Your task to perform on an android device: uninstall "DoorDash - Dasher" Image 0: 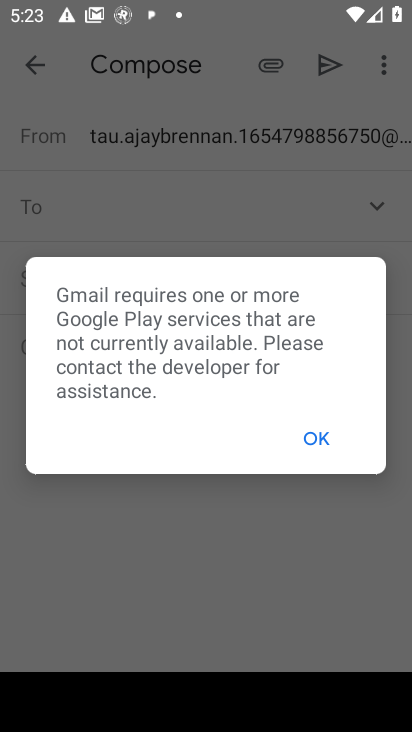
Step 0: press home button
Your task to perform on an android device: uninstall "DoorDash - Dasher" Image 1: 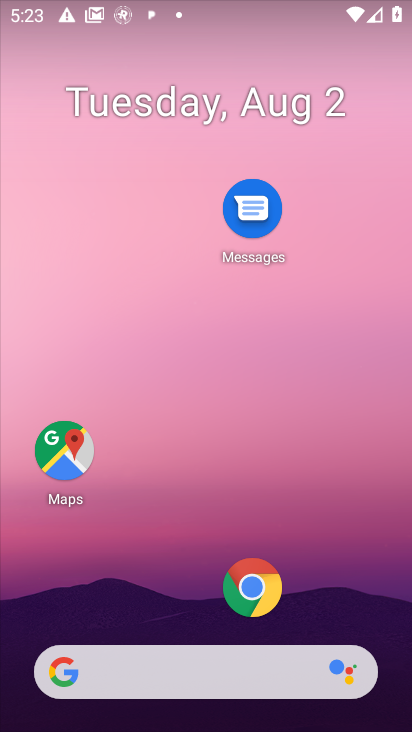
Step 1: drag from (159, 607) to (86, 263)
Your task to perform on an android device: uninstall "DoorDash - Dasher" Image 2: 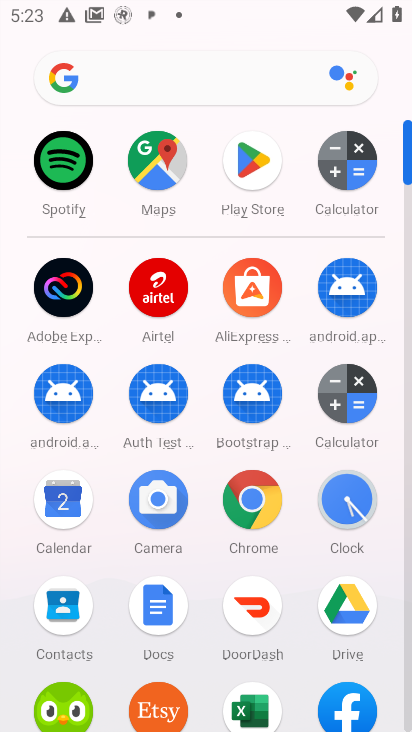
Step 2: click (253, 175)
Your task to perform on an android device: uninstall "DoorDash - Dasher" Image 3: 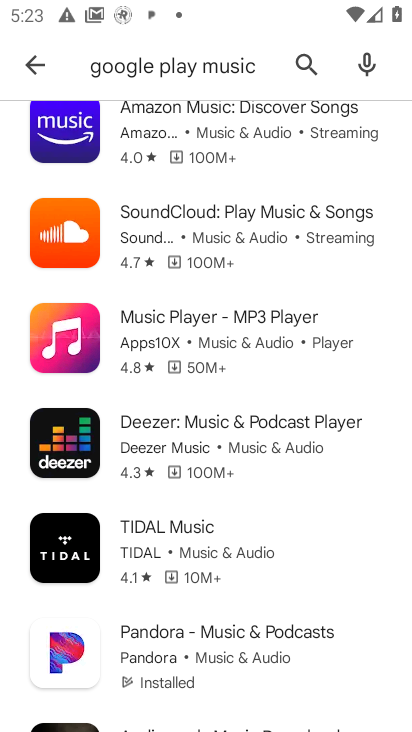
Step 3: click (314, 64)
Your task to perform on an android device: uninstall "DoorDash - Dasher" Image 4: 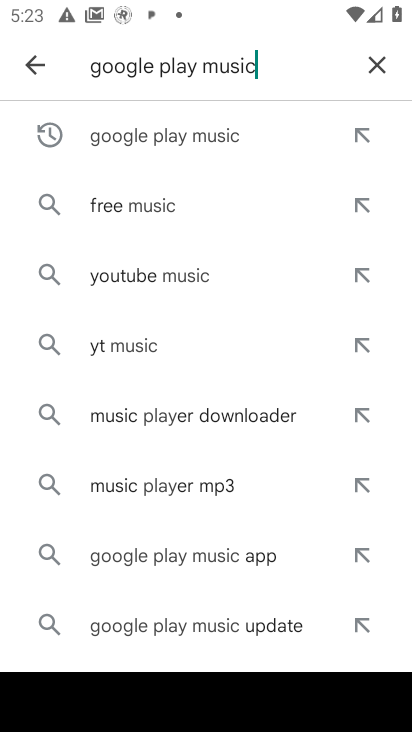
Step 4: click (369, 62)
Your task to perform on an android device: uninstall "DoorDash - Dasher" Image 5: 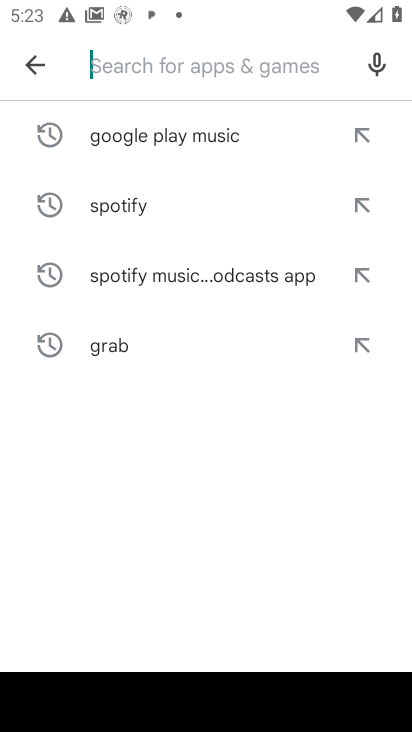
Step 5: type "DoorDash - Dashe"
Your task to perform on an android device: uninstall "DoorDash - Dasher" Image 6: 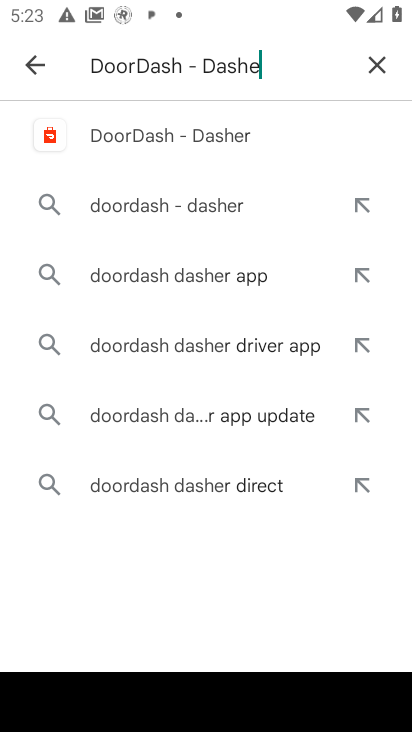
Step 6: type ""
Your task to perform on an android device: uninstall "DoorDash - Dasher" Image 7: 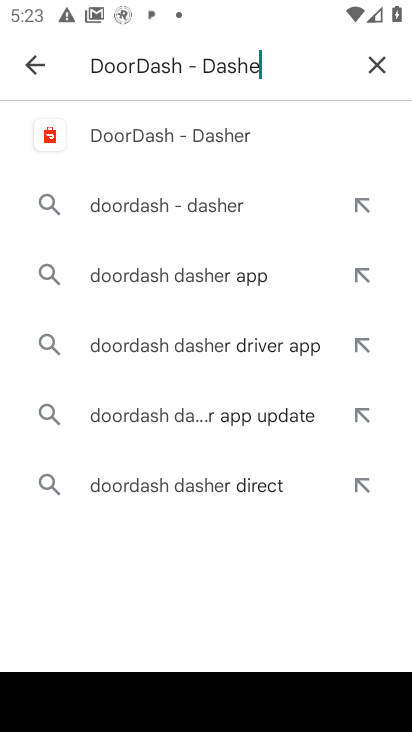
Step 7: click (123, 147)
Your task to perform on an android device: uninstall "DoorDash - Dasher" Image 8: 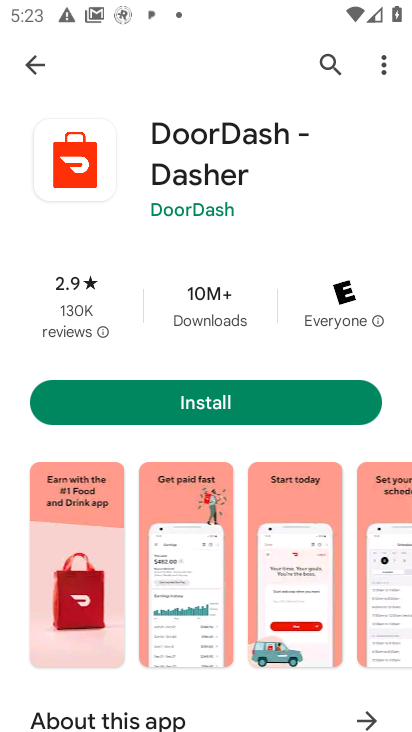
Step 8: task complete